Your task to perform on an android device: Open Google Chrome and click the shortcut for Amazon.com Image 0: 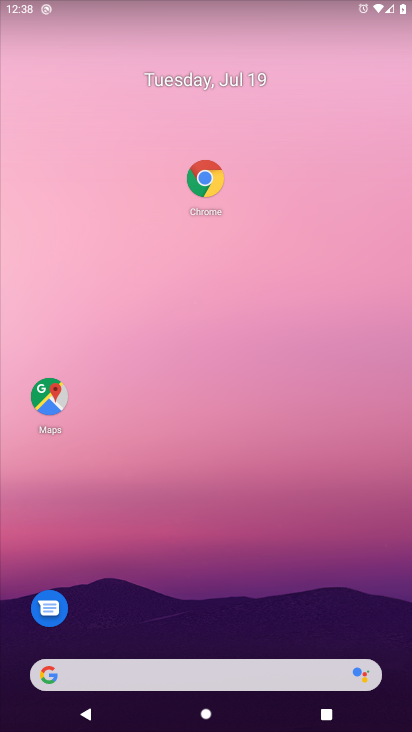
Step 0: click (192, 178)
Your task to perform on an android device: Open Google Chrome and click the shortcut for Amazon.com Image 1: 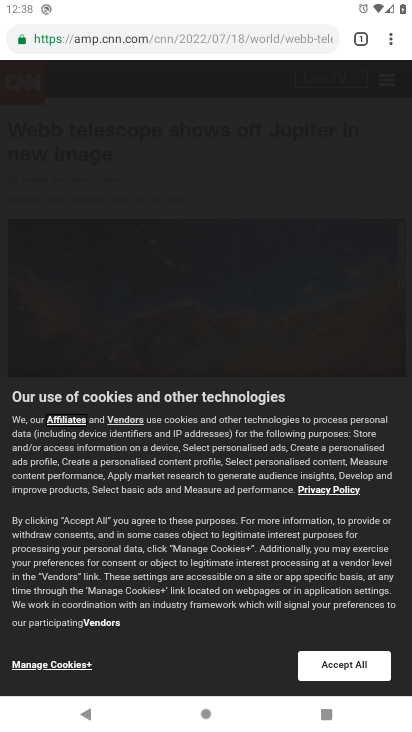
Step 1: click (110, 39)
Your task to perform on an android device: Open Google Chrome and click the shortcut for Amazon.com Image 2: 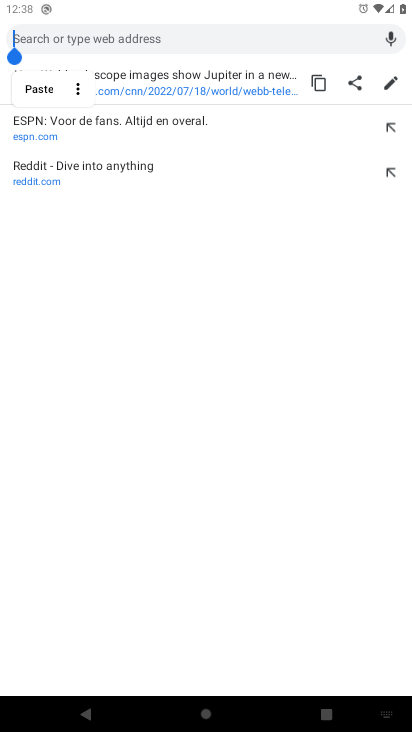
Step 2: click (81, 42)
Your task to perform on an android device: Open Google Chrome and click the shortcut for Amazon.com Image 3: 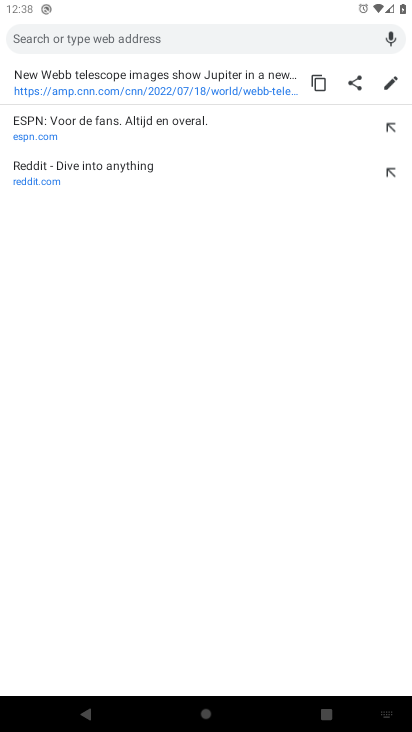
Step 3: task complete